Your task to perform on an android device: Open Android settings Image 0: 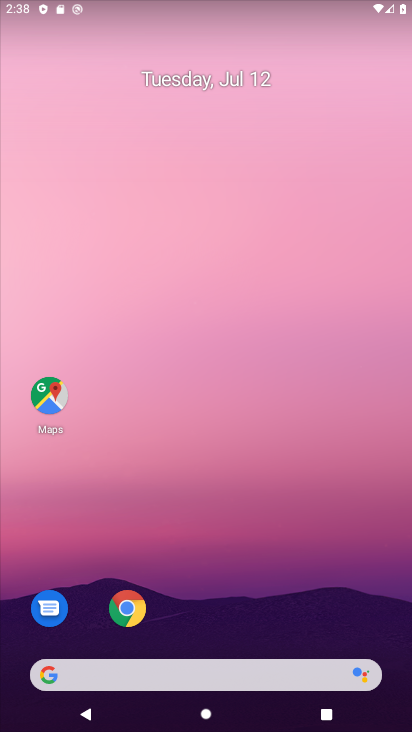
Step 0: drag from (213, 558) to (225, 124)
Your task to perform on an android device: Open Android settings Image 1: 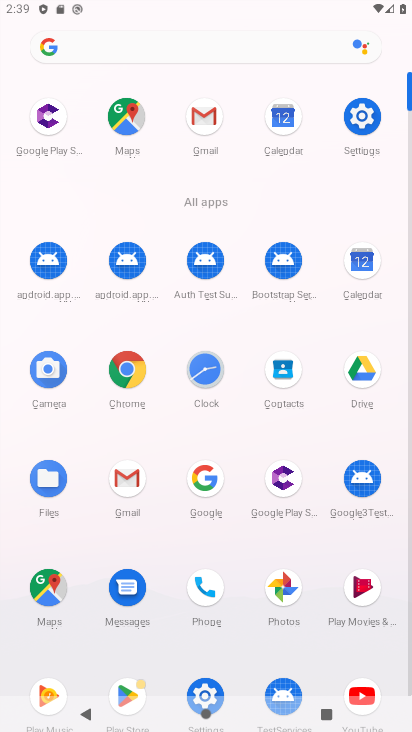
Step 1: click (360, 127)
Your task to perform on an android device: Open Android settings Image 2: 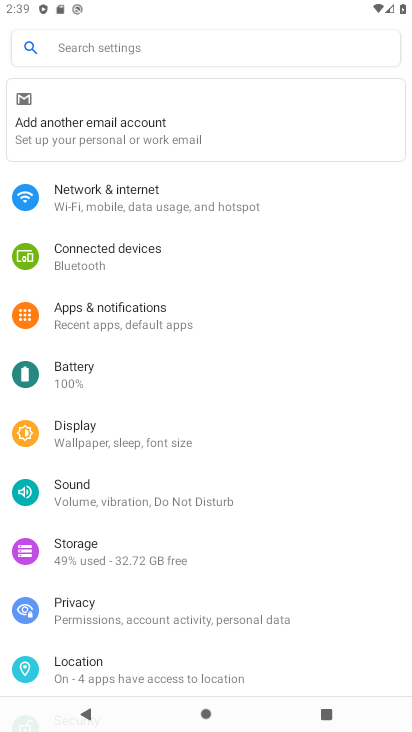
Step 2: drag from (289, 577) to (289, 156)
Your task to perform on an android device: Open Android settings Image 3: 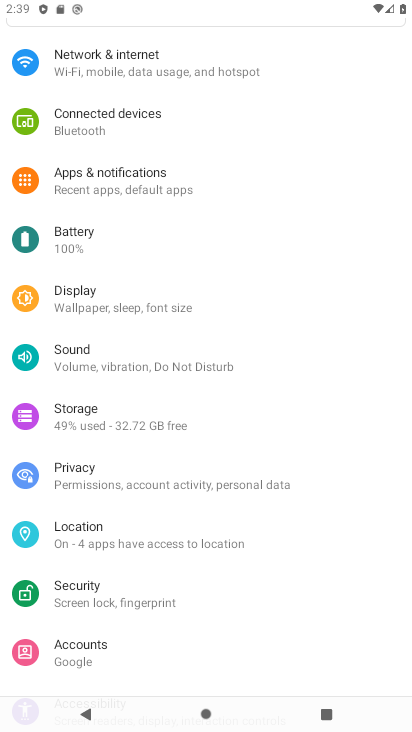
Step 3: drag from (263, 652) to (263, 76)
Your task to perform on an android device: Open Android settings Image 4: 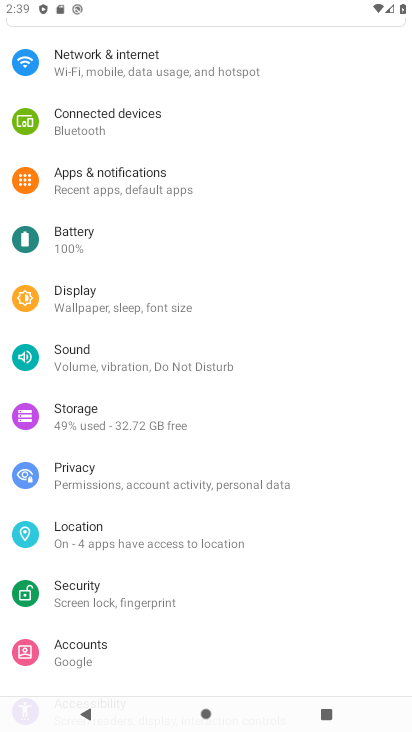
Step 4: drag from (200, 581) to (200, 368)
Your task to perform on an android device: Open Android settings Image 5: 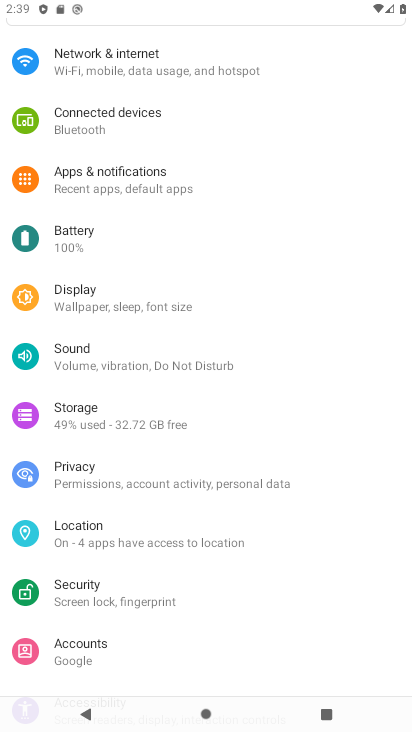
Step 5: drag from (178, 681) to (229, 285)
Your task to perform on an android device: Open Android settings Image 6: 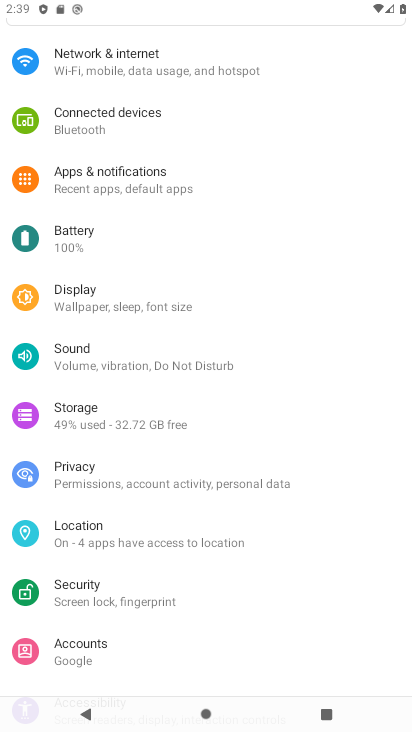
Step 6: drag from (193, 481) to (135, 38)
Your task to perform on an android device: Open Android settings Image 7: 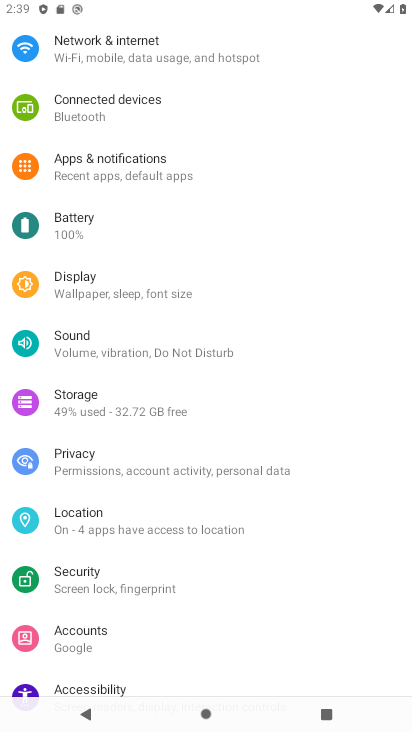
Step 7: drag from (160, 564) to (131, 155)
Your task to perform on an android device: Open Android settings Image 8: 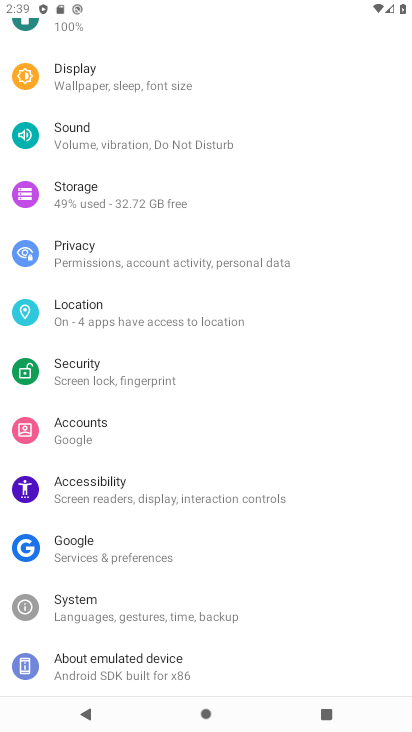
Step 8: click (100, 603)
Your task to perform on an android device: Open Android settings Image 9: 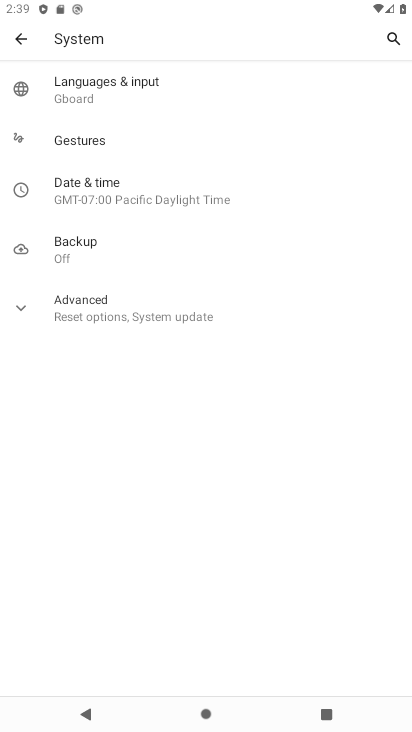
Step 9: task complete